Your task to perform on an android device: change keyboard looks Image 0: 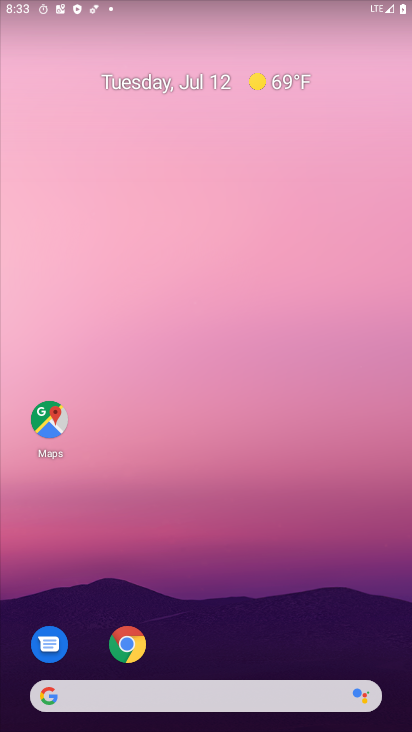
Step 0: drag from (210, 647) to (218, 3)
Your task to perform on an android device: change keyboard looks Image 1: 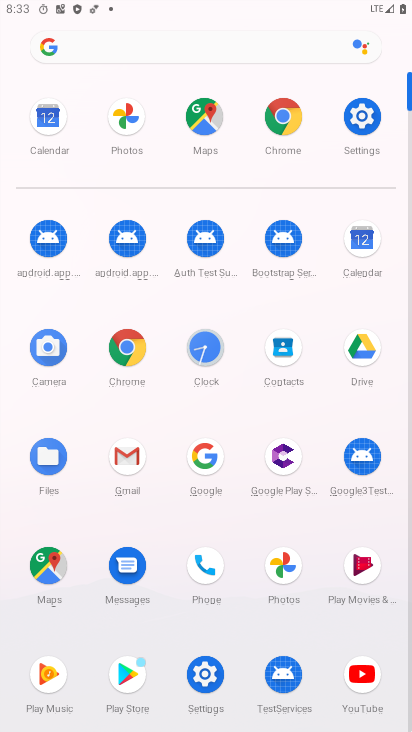
Step 1: click (357, 114)
Your task to perform on an android device: change keyboard looks Image 2: 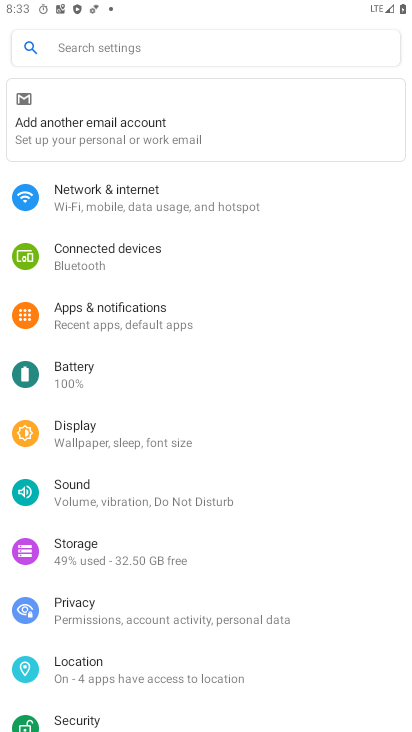
Step 2: drag from (252, 686) to (258, 76)
Your task to perform on an android device: change keyboard looks Image 3: 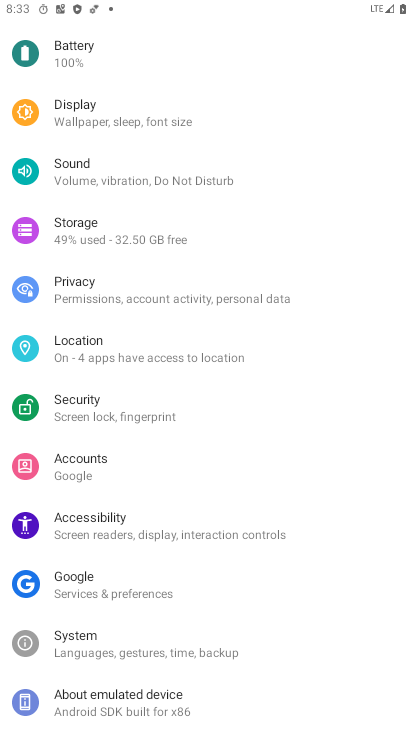
Step 3: click (129, 636)
Your task to perform on an android device: change keyboard looks Image 4: 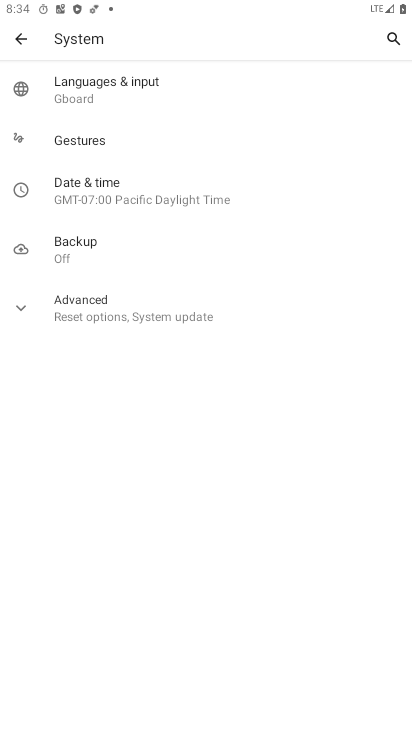
Step 4: click (66, 92)
Your task to perform on an android device: change keyboard looks Image 5: 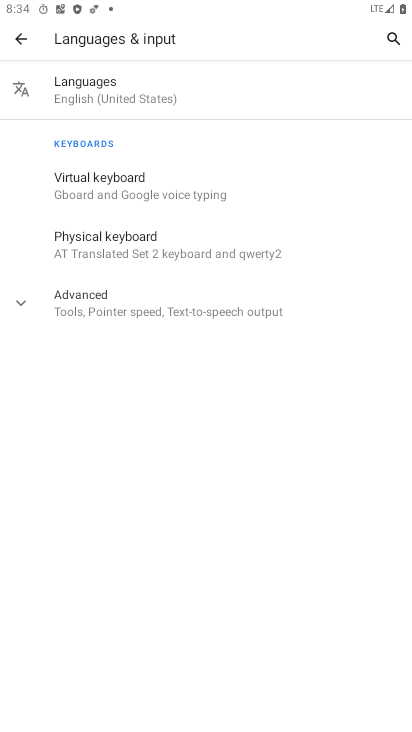
Step 5: click (164, 170)
Your task to perform on an android device: change keyboard looks Image 6: 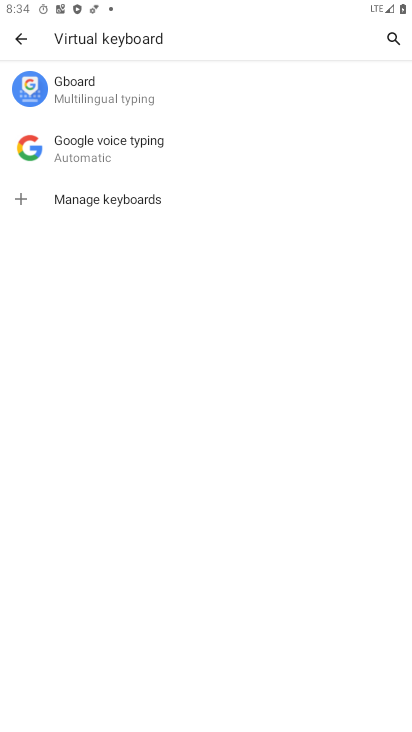
Step 6: click (113, 85)
Your task to perform on an android device: change keyboard looks Image 7: 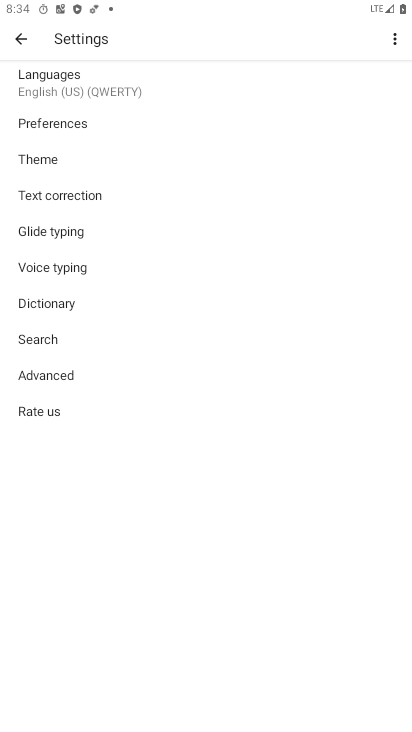
Step 7: click (64, 156)
Your task to perform on an android device: change keyboard looks Image 8: 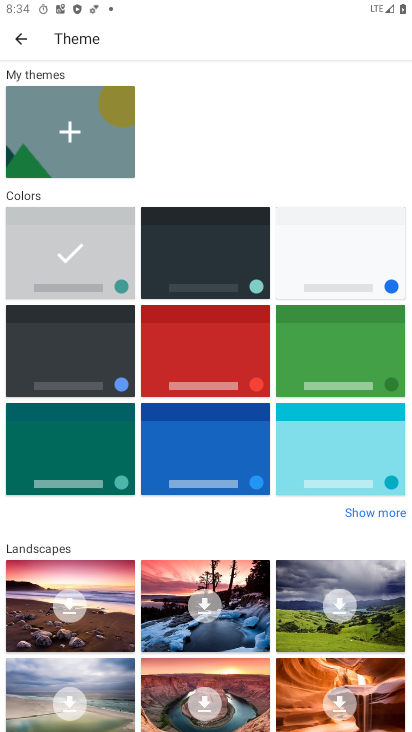
Step 8: click (332, 349)
Your task to perform on an android device: change keyboard looks Image 9: 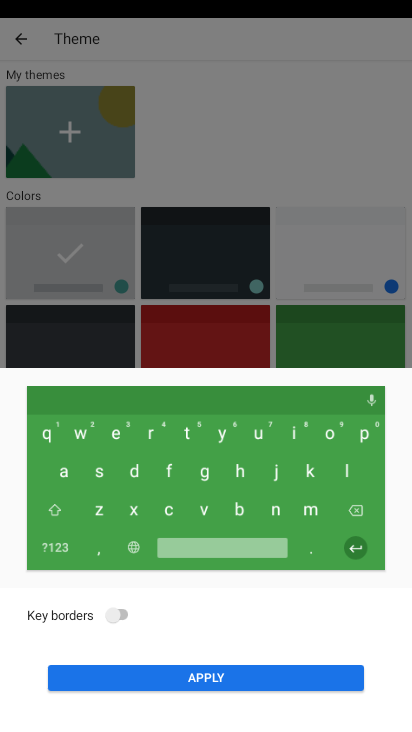
Step 9: click (208, 678)
Your task to perform on an android device: change keyboard looks Image 10: 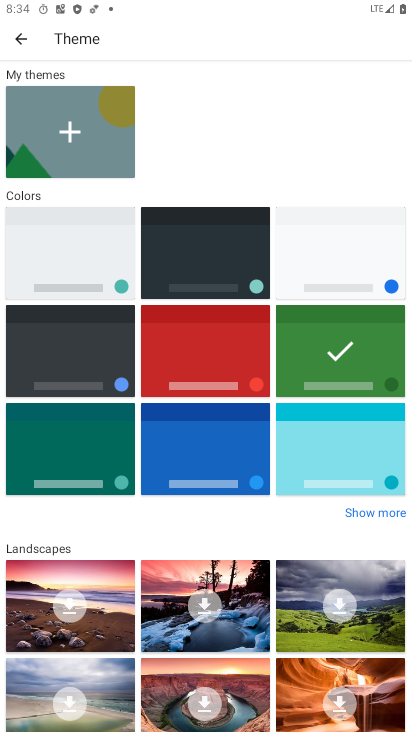
Step 10: task complete